Your task to perform on an android device: open the mobile data screen to see how much data has been used Image 0: 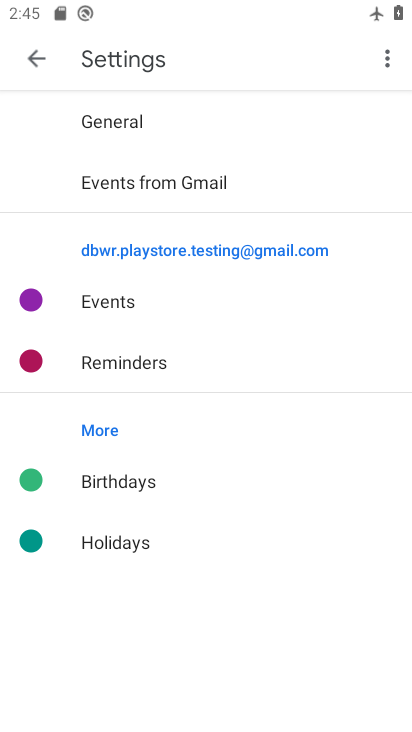
Step 0: press home button
Your task to perform on an android device: open the mobile data screen to see how much data has been used Image 1: 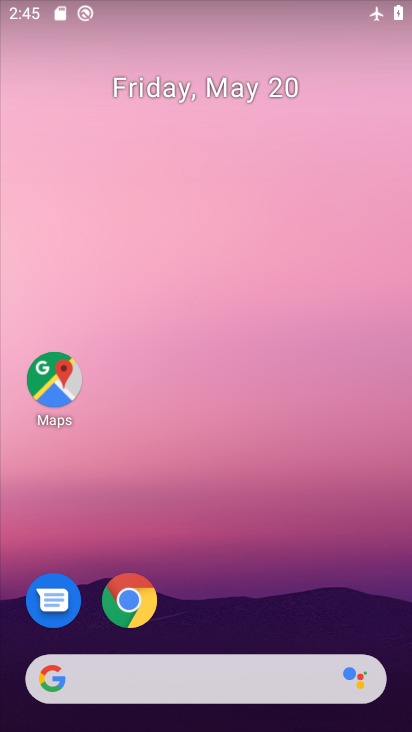
Step 1: drag from (321, 568) to (232, 32)
Your task to perform on an android device: open the mobile data screen to see how much data has been used Image 2: 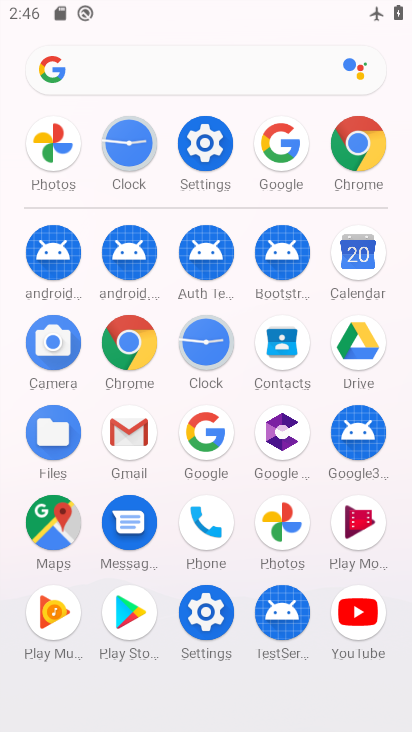
Step 2: click (205, 327)
Your task to perform on an android device: open the mobile data screen to see how much data has been used Image 3: 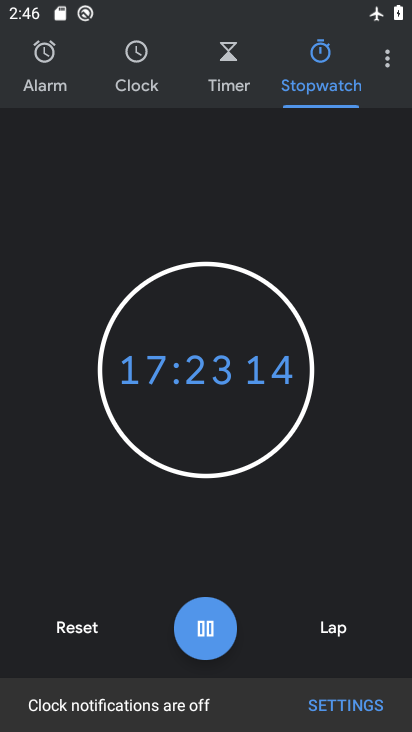
Step 3: click (378, 65)
Your task to perform on an android device: open the mobile data screen to see how much data has been used Image 4: 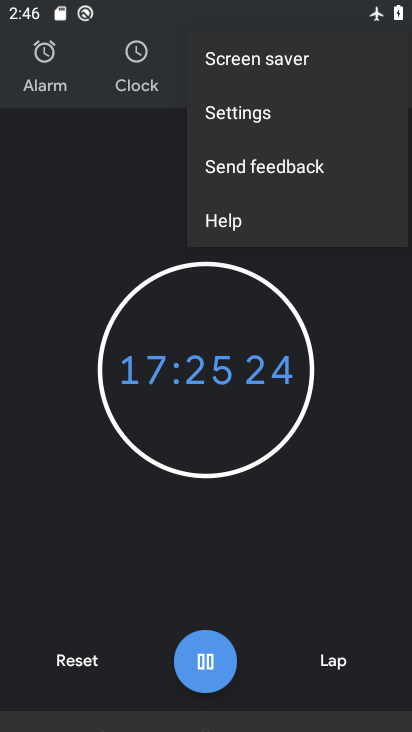
Step 4: click (273, 120)
Your task to perform on an android device: open the mobile data screen to see how much data has been used Image 5: 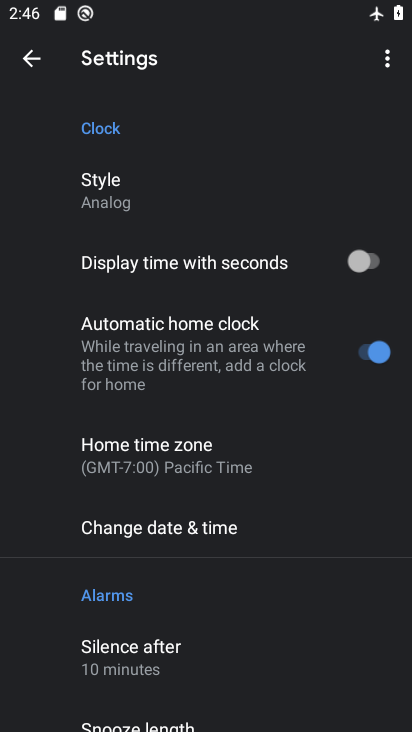
Step 5: press home button
Your task to perform on an android device: open the mobile data screen to see how much data has been used Image 6: 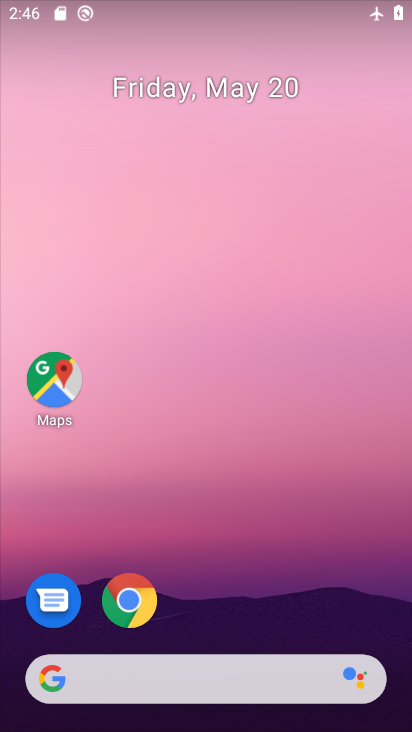
Step 6: drag from (313, 481) to (221, 16)
Your task to perform on an android device: open the mobile data screen to see how much data has been used Image 7: 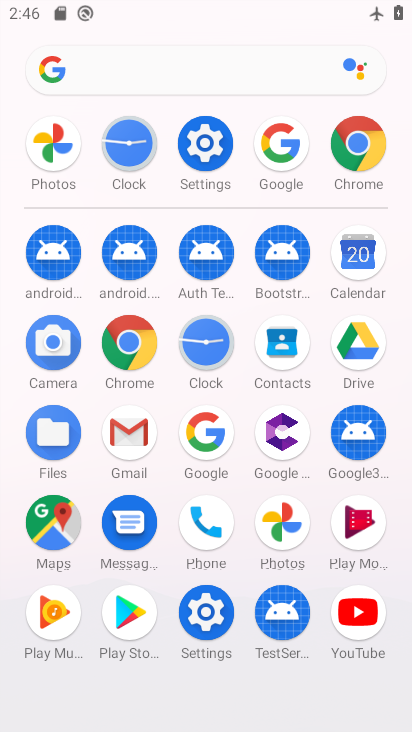
Step 7: click (194, 162)
Your task to perform on an android device: open the mobile data screen to see how much data has been used Image 8: 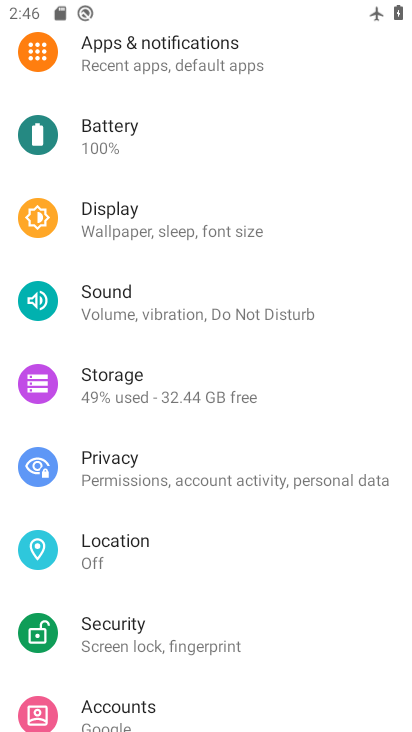
Step 8: drag from (244, 204) to (250, 647)
Your task to perform on an android device: open the mobile data screen to see how much data has been used Image 9: 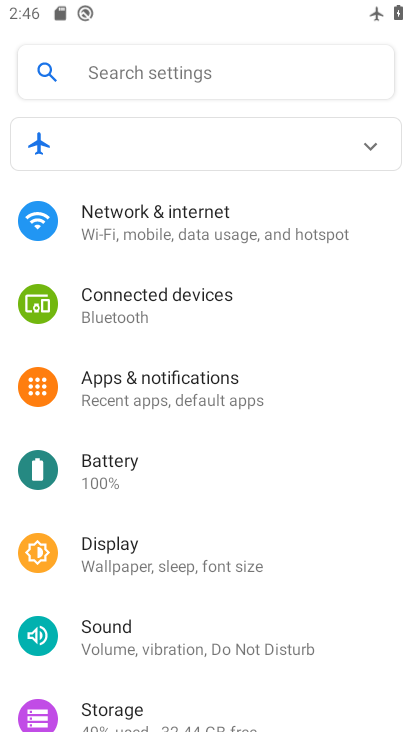
Step 9: click (221, 228)
Your task to perform on an android device: open the mobile data screen to see how much data has been used Image 10: 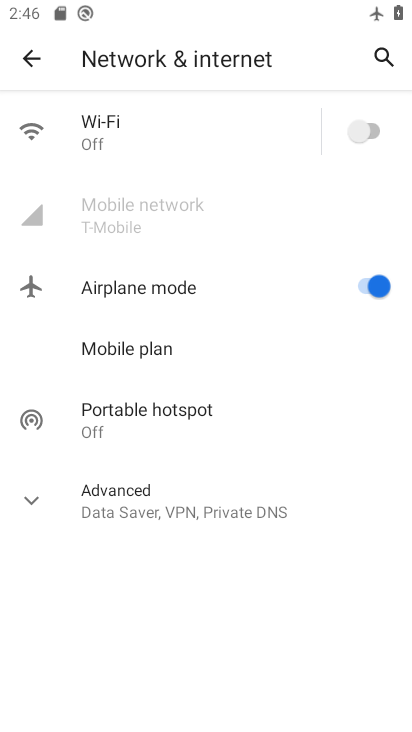
Step 10: click (194, 216)
Your task to perform on an android device: open the mobile data screen to see how much data has been used Image 11: 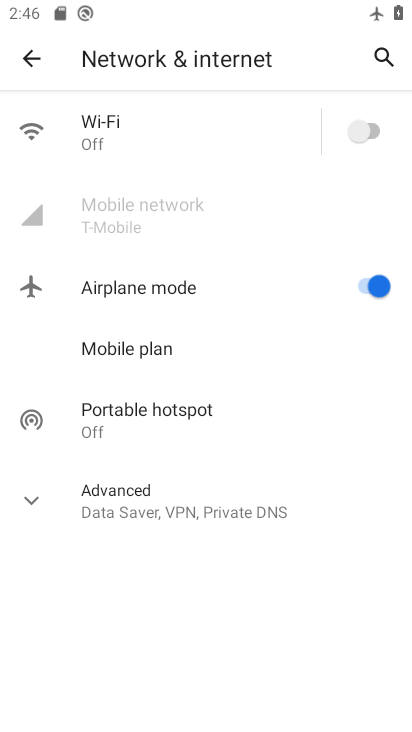
Step 11: task complete